Your task to perform on an android device: Show me recent news Image 0: 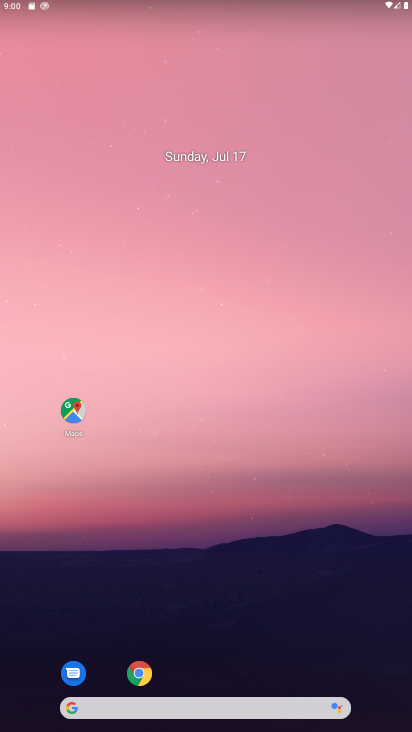
Step 0: drag from (389, 704) to (288, 49)
Your task to perform on an android device: Show me recent news Image 1: 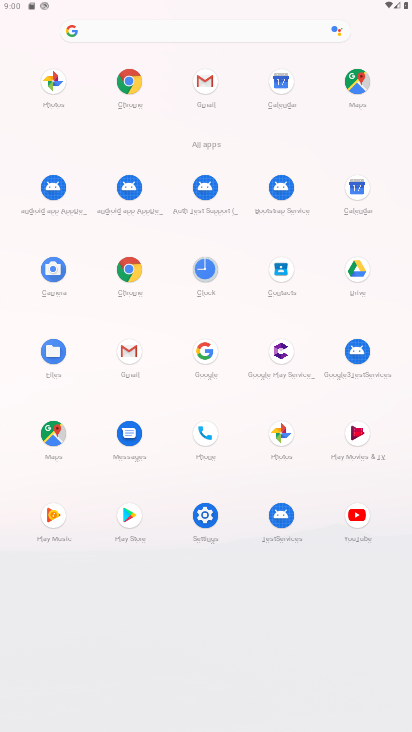
Step 1: click (203, 352)
Your task to perform on an android device: Show me recent news Image 2: 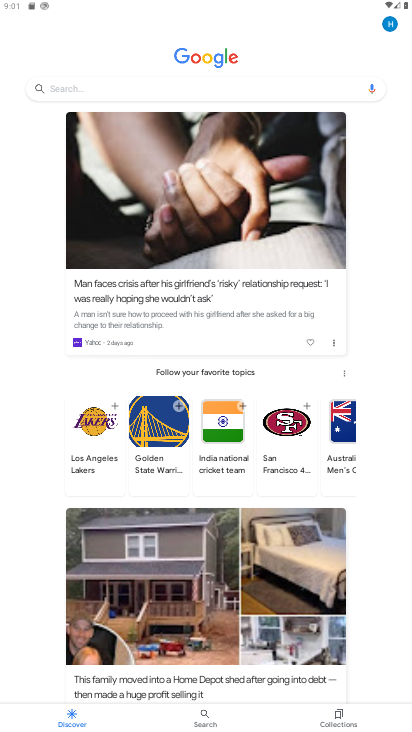
Step 2: task complete